Your task to perform on an android device: set the timer Image 0: 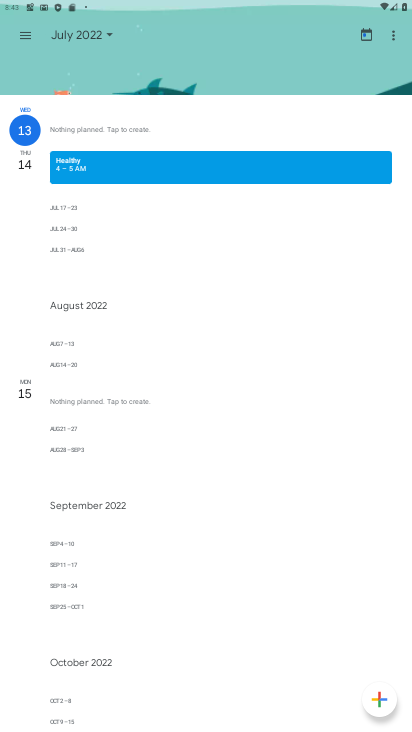
Step 0: press home button
Your task to perform on an android device: set the timer Image 1: 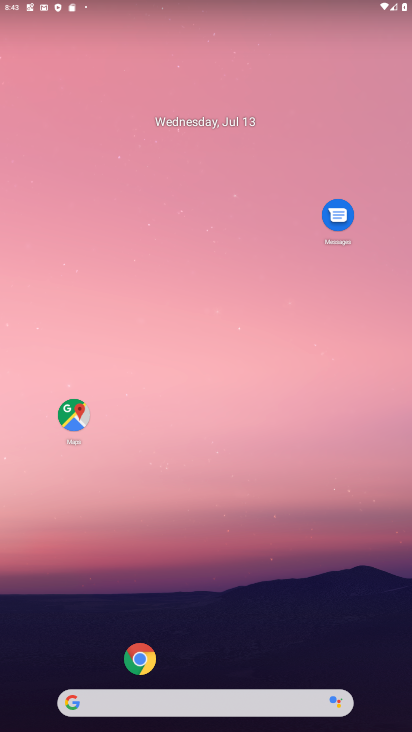
Step 1: drag from (50, 681) to (151, 114)
Your task to perform on an android device: set the timer Image 2: 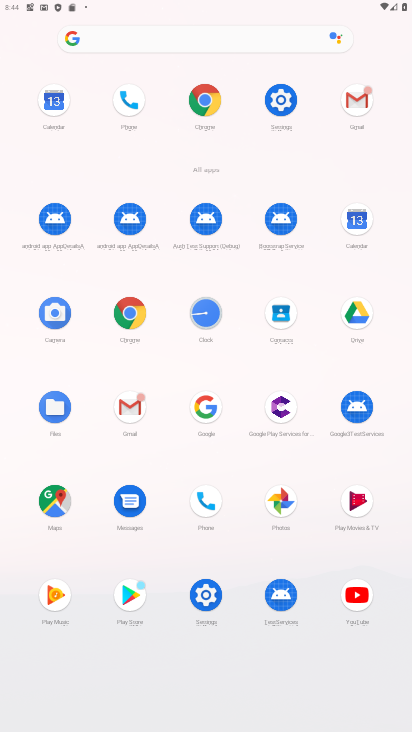
Step 2: click (202, 306)
Your task to perform on an android device: set the timer Image 3: 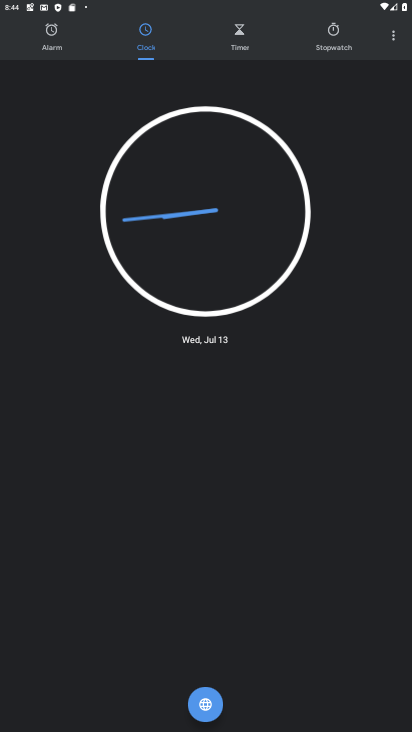
Step 3: click (257, 40)
Your task to perform on an android device: set the timer Image 4: 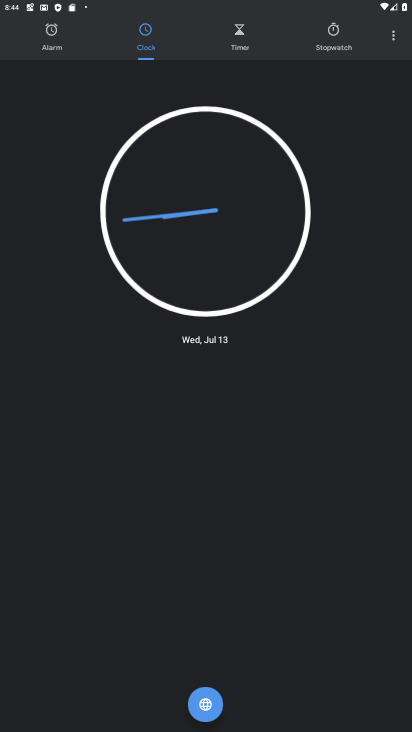
Step 4: click (239, 47)
Your task to perform on an android device: set the timer Image 5: 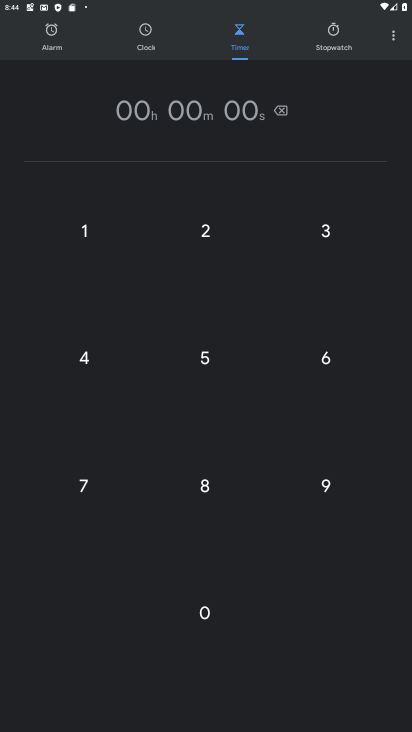
Step 5: click (186, 348)
Your task to perform on an android device: set the timer Image 6: 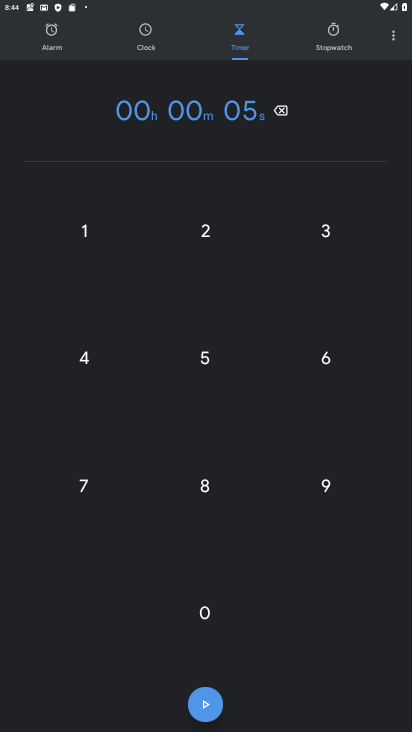
Step 6: task complete